Your task to perform on an android device: check data usage Image 0: 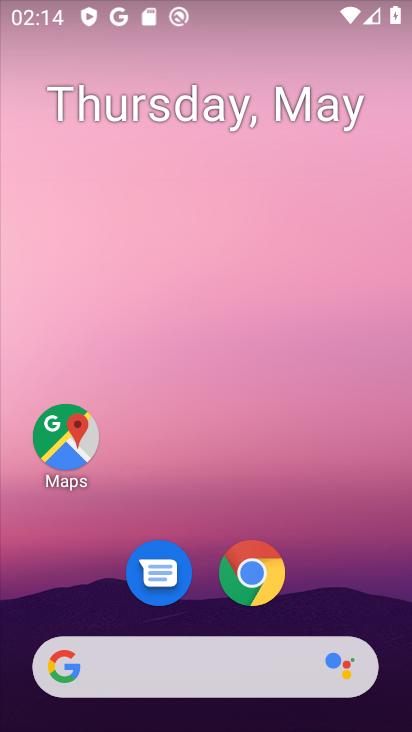
Step 0: drag from (324, 576) to (299, 269)
Your task to perform on an android device: check data usage Image 1: 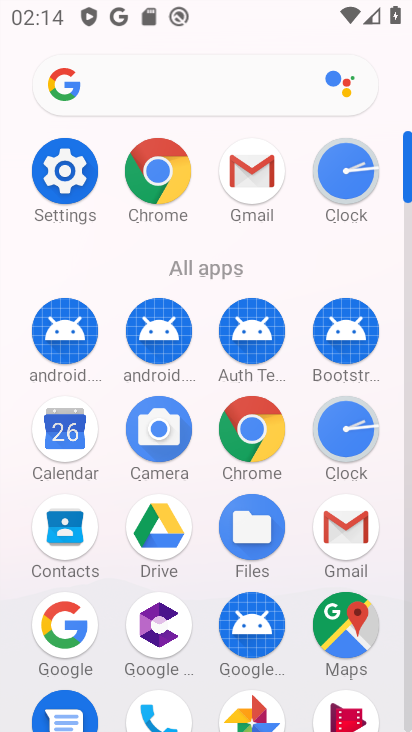
Step 1: click (76, 172)
Your task to perform on an android device: check data usage Image 2: 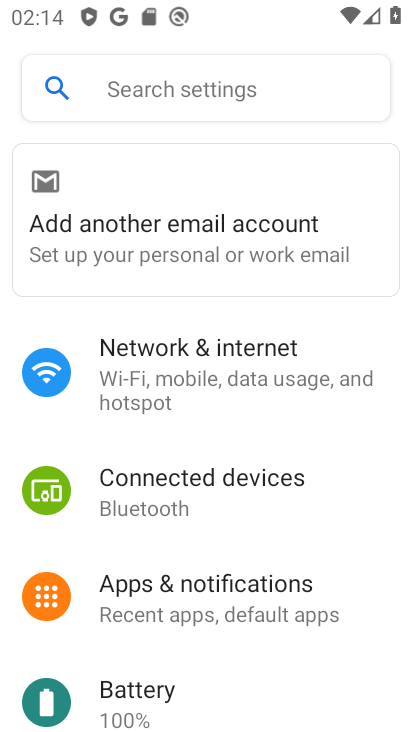
Step 2: click (214, 353)
Your task to perform on an android device: check data usage Image 3: 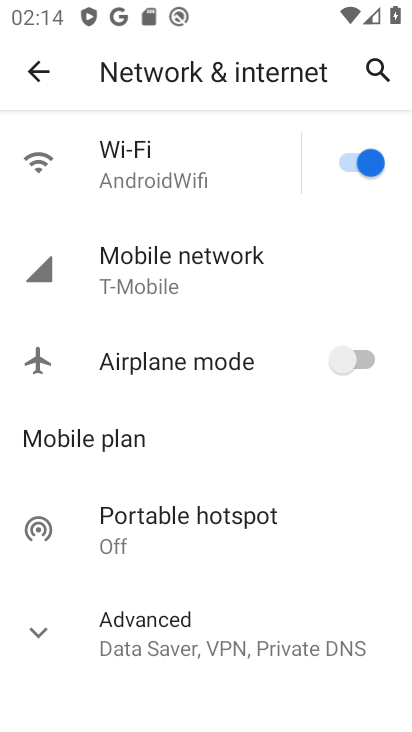
Step 3: click (191, 267)
Your task to perform on an android device: check data usage Image 4: 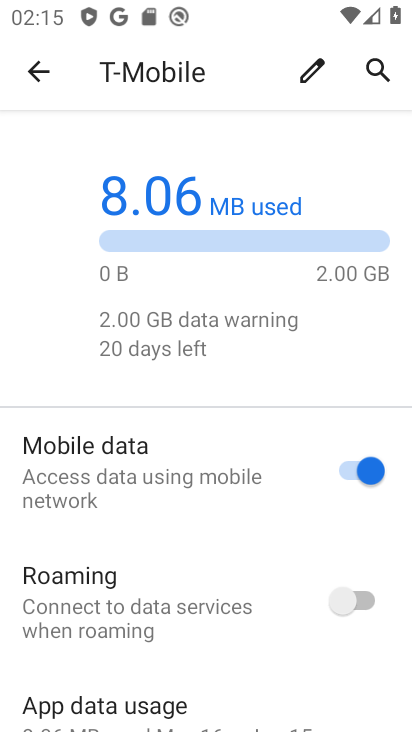
Step 4: task complete